Your task to perform on an android device: set the timer Image 0: 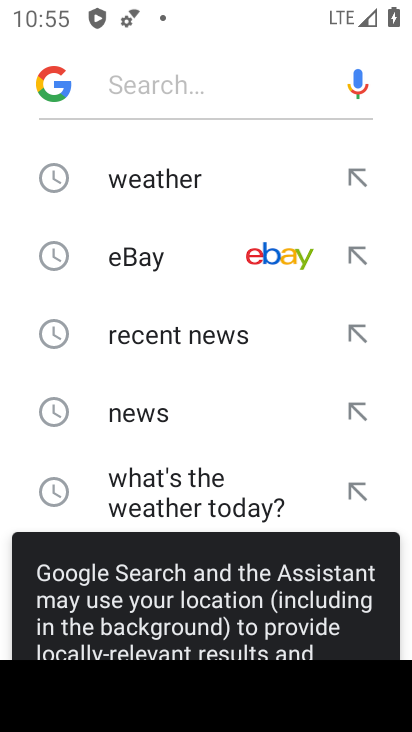
Step 0: press home button
Your task to perform on an android device: set the timer Image 1: 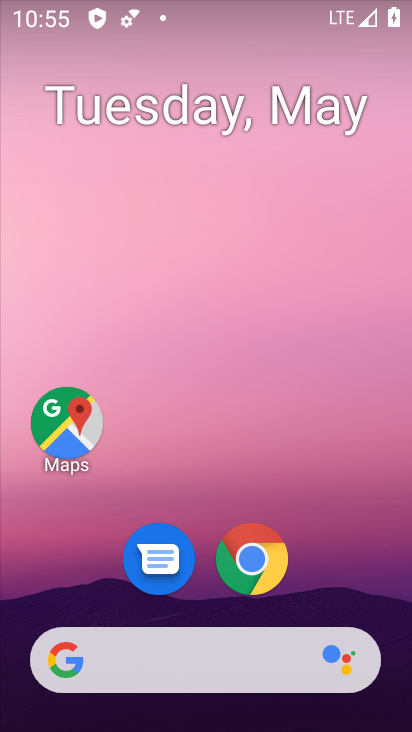
Step 1: drag from (382, 571) to (347, 106)
Your task to perform on an android device: set the timer Image 2: 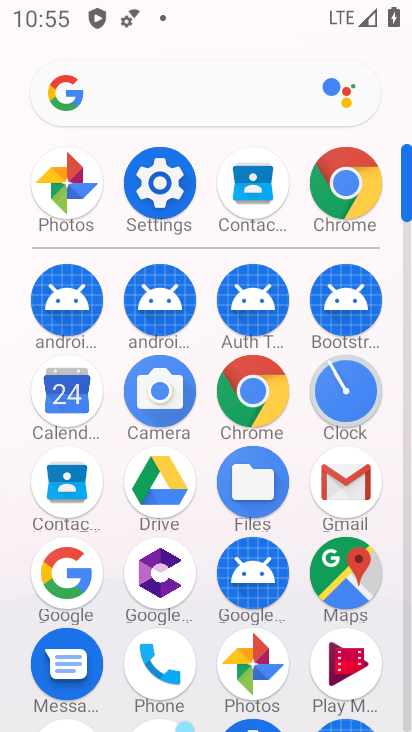
Step 2: click (333, 394)
Your task to perform on an android device: set the timer Image 3: 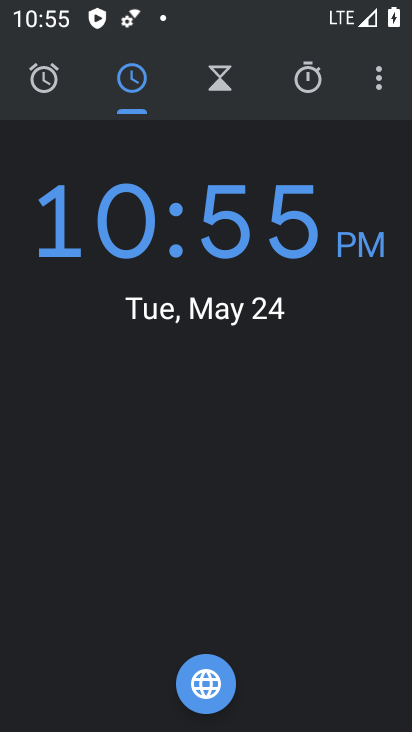
Step 3: drag from (388, 75) to (7, 163)
Your task to perform on an android device: set the timer Image 4: 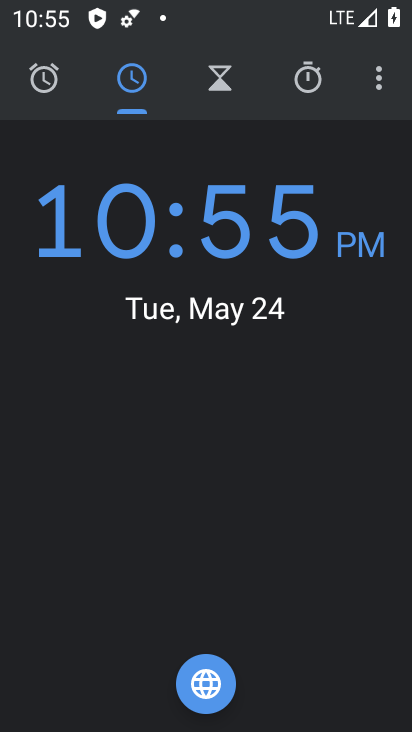
Step 4: click (216, 81)
Your task to perform on an android device: set the timer Image 5: 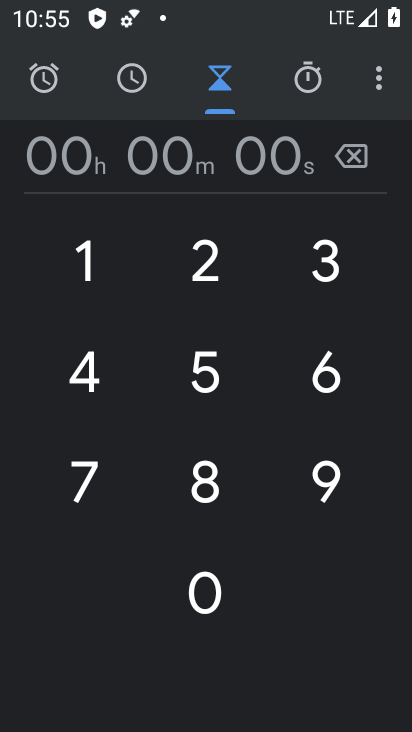
Step 5: click (64, 256)
Your task to perform on an android device: set the timer Image 6: 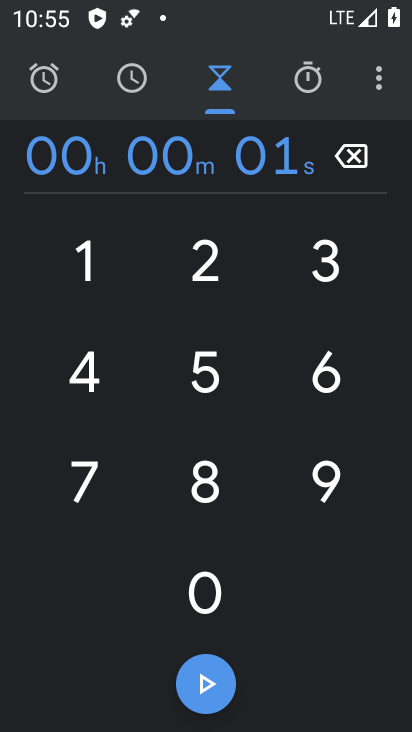
Step 6: click (210, 380)
Your task to perform on an android device: set the timer Image 7: 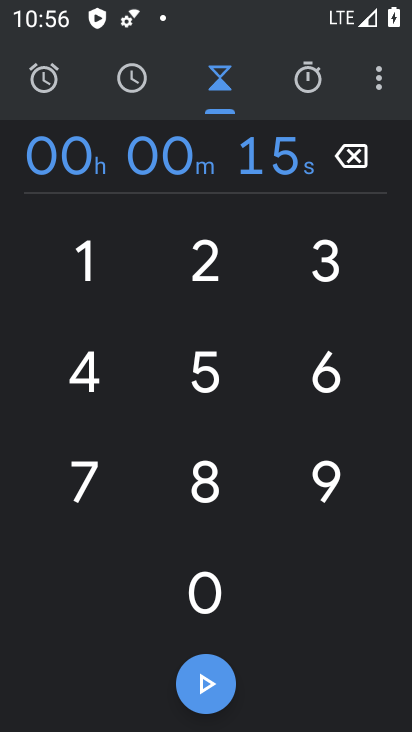
Step 7: click (205, 678)
Your task to perform on an android device: set the timer Image 8: 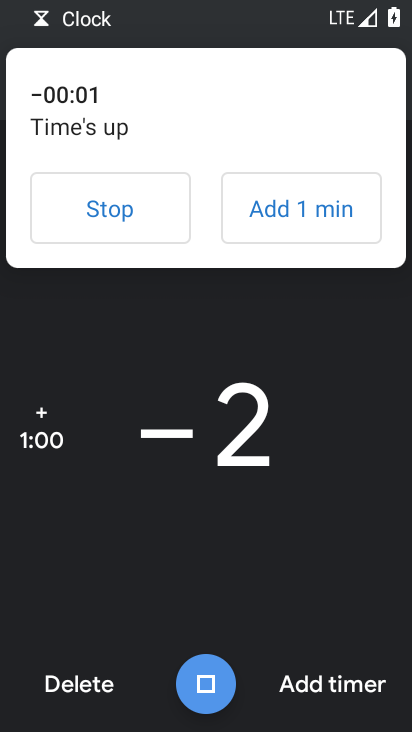
Step 8: click (100, 216)
Your task to perform on an android device: set the timer Image 9: 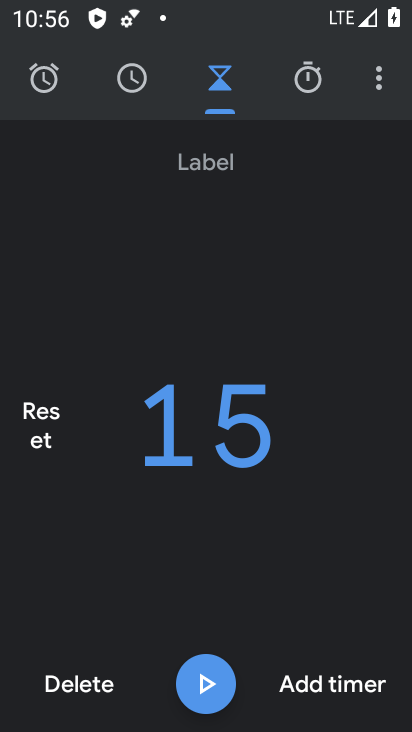
Step 9: task complete